Your task to perform on an android device: Open accessibility settings Image 0: 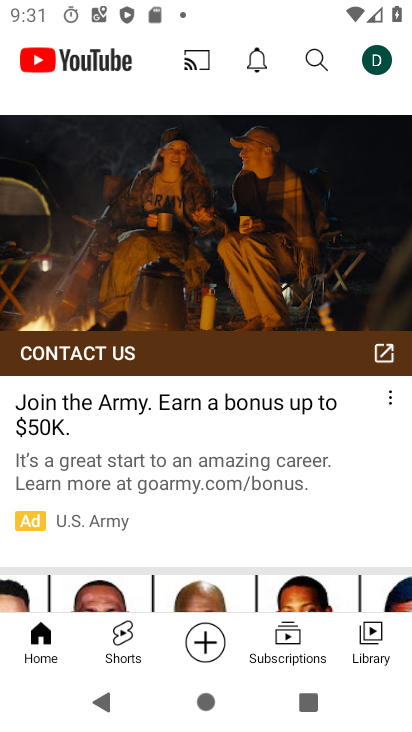
Step 0: press home button
Your task to perform on an android device: Open accessibility settings Image 1: 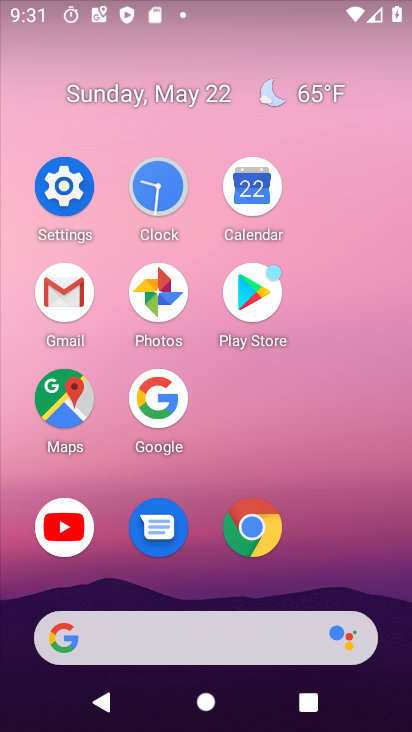
Step 1: click (29, 199)
Your task to perform on an android device: Open accessibility settings Image 2: 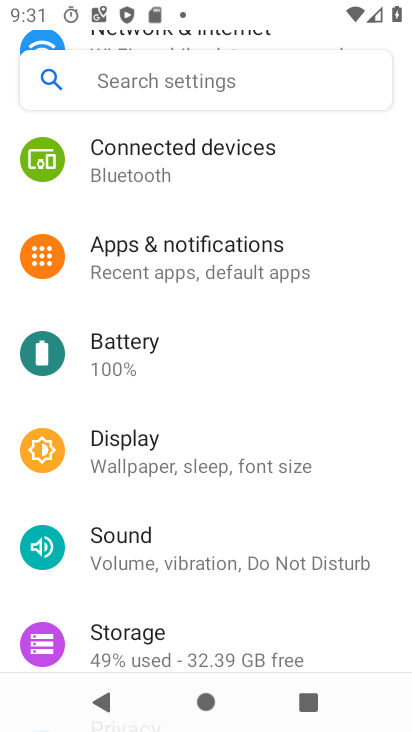
Step 2: drag from (298, 584) to (259, 159)
Your task to perform on an android device: Open accessibility settings Image 3: 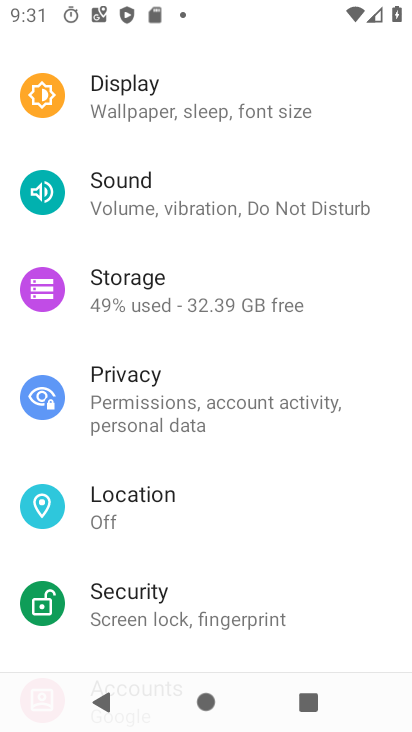
Step 3: drag from (225, 568) to (207, 199)
Your task to perform on an android device: Open accessibility settings Image 4: 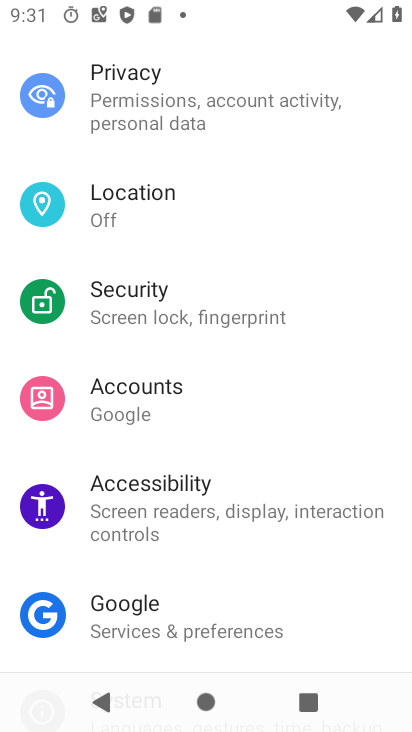
Step 4: click (235, 474)
Your task to perform on an android device: Open accessibility settings Image 5: 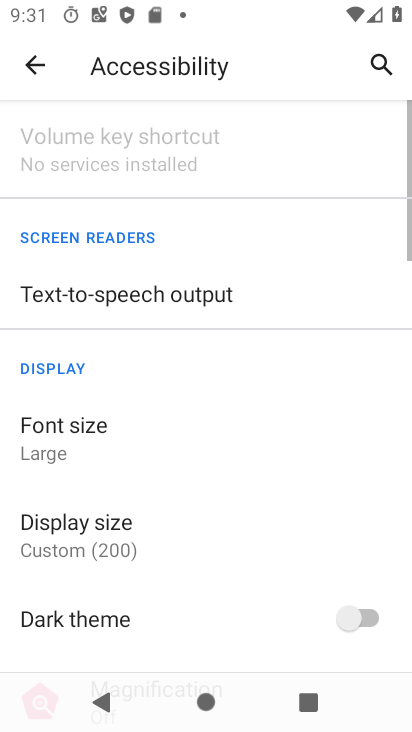
Step 5: task complete